Your task to perform on an android device: Open internet settings Image 0: 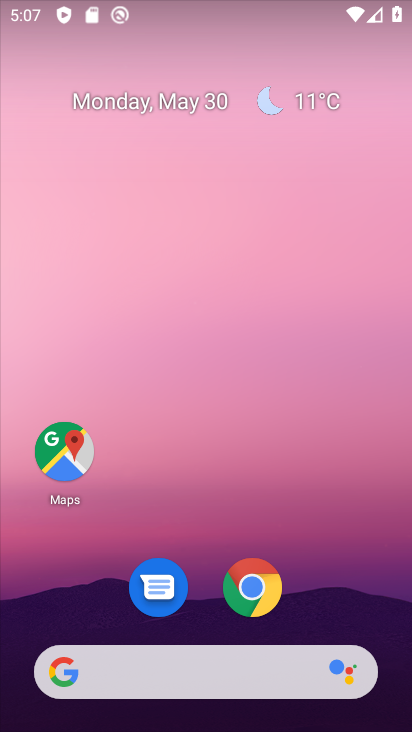
Step 0: drag from (284, 518) to (219, 20)
Your task to perform on an android device: Open internet settings Image 1: 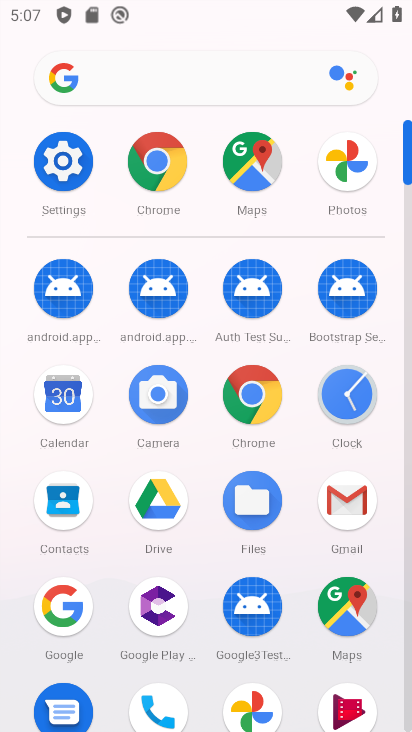
Step 1: drag from (4, 243) to (10, 204)
Your task to perform on an android device: Open internet settings Image 2: 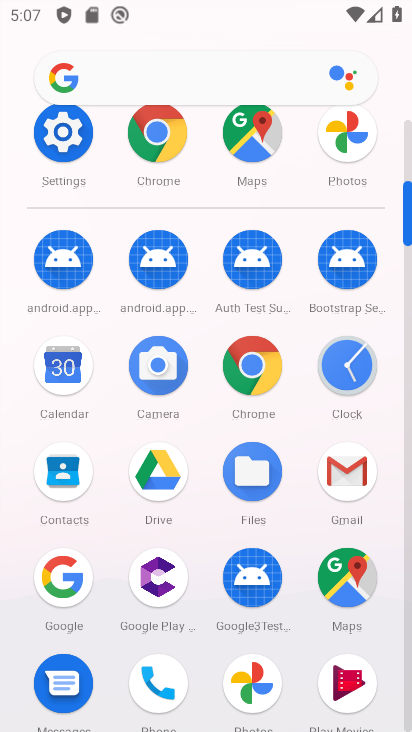
Step 2: click (61, 134)
Your task to perform on an android device: Open internet settings Image 3: 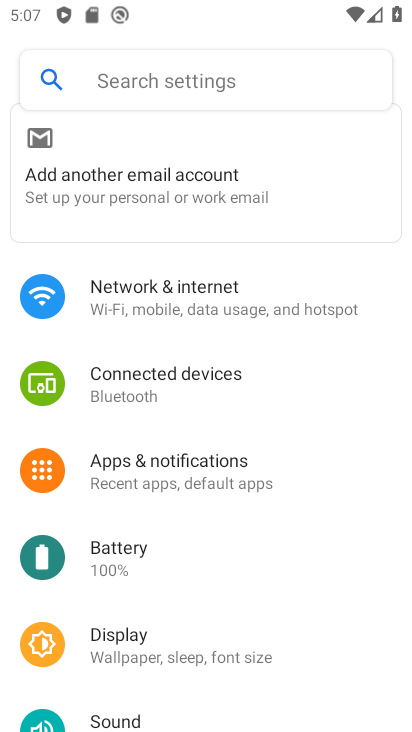
Step 3: click (213, 300)
Your task to perform on an android device: Open internet settings Image 4: 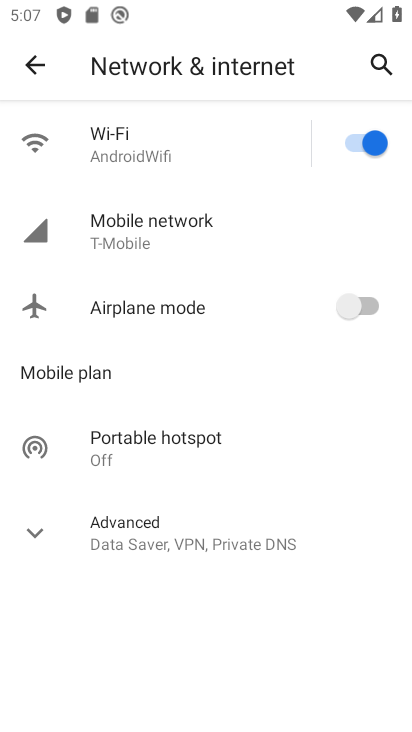
Step 4: click (20, 527)
Your task to perform on an android device: Open internet settings Image 5: 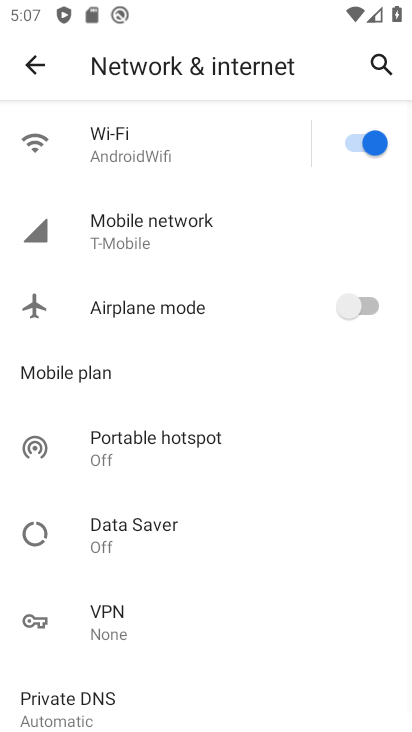
Step 5: task complete